Your task to perform on an android device: Search for a new grill on Home Depot Image 0: 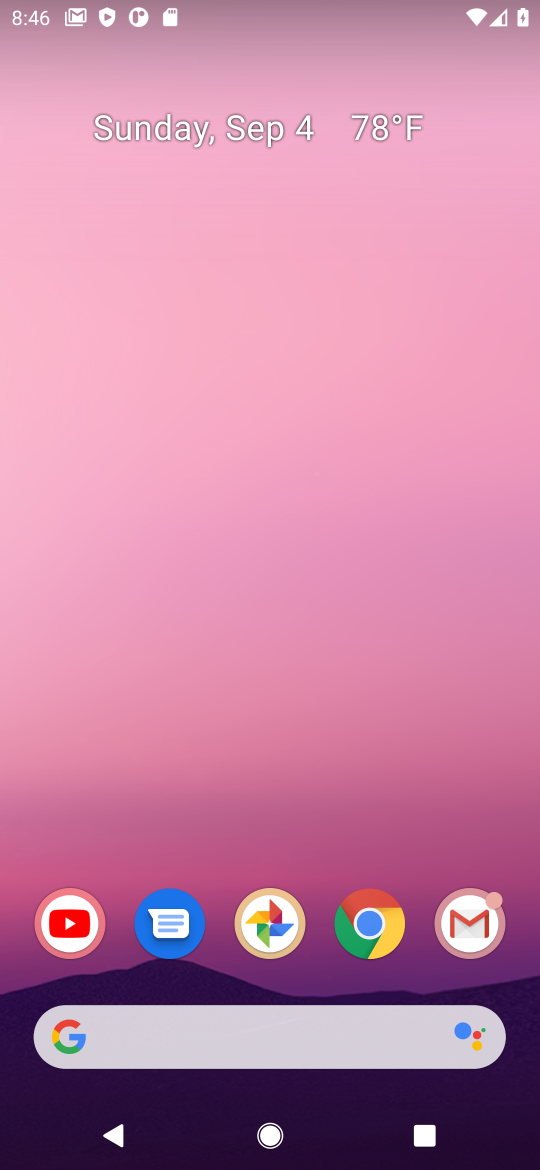
Step 0: click (335, 940)
Your task to perform on an android device: Search for a new grill on Home Depot Image 1: 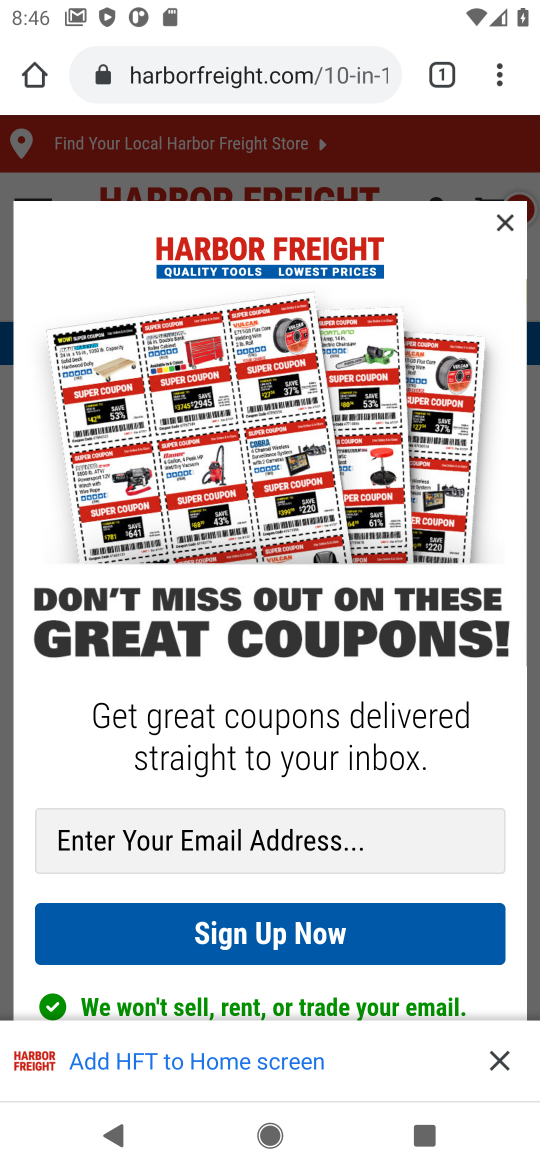
Step 1: click (152, 84)
Your task to perform on an android device: Search for a new grill on Home Depot Image 2: 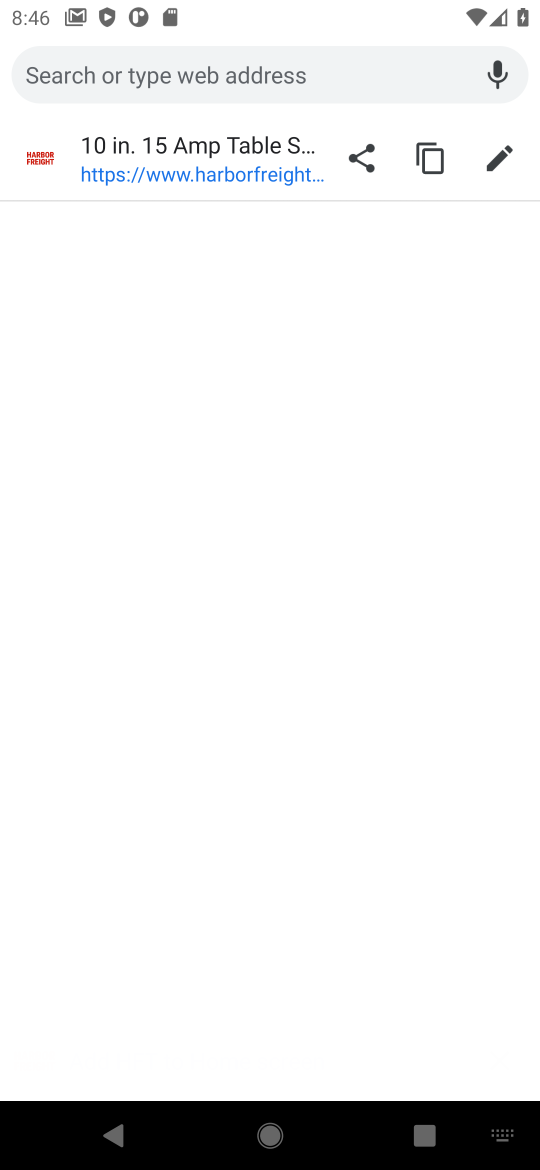
Step 2: type "new grill on Home Depot"
Your task to perform on an android device: Search for a new grill on Home Depot Image 3: 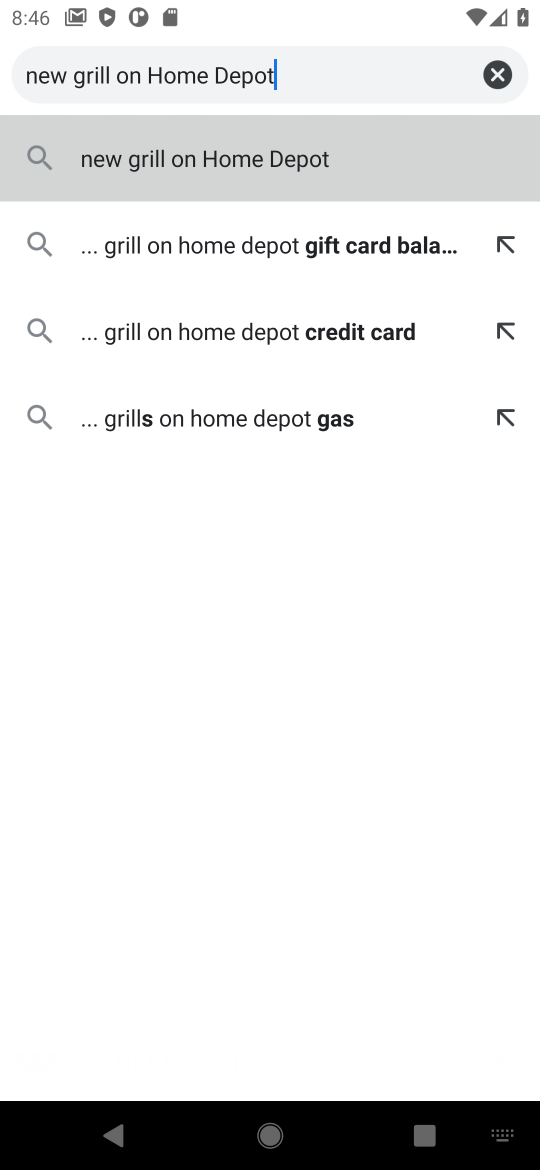
Step 3: click (205, 140)
Your task to perform on an android device: Search for a new grill on Home Depot Image 4: 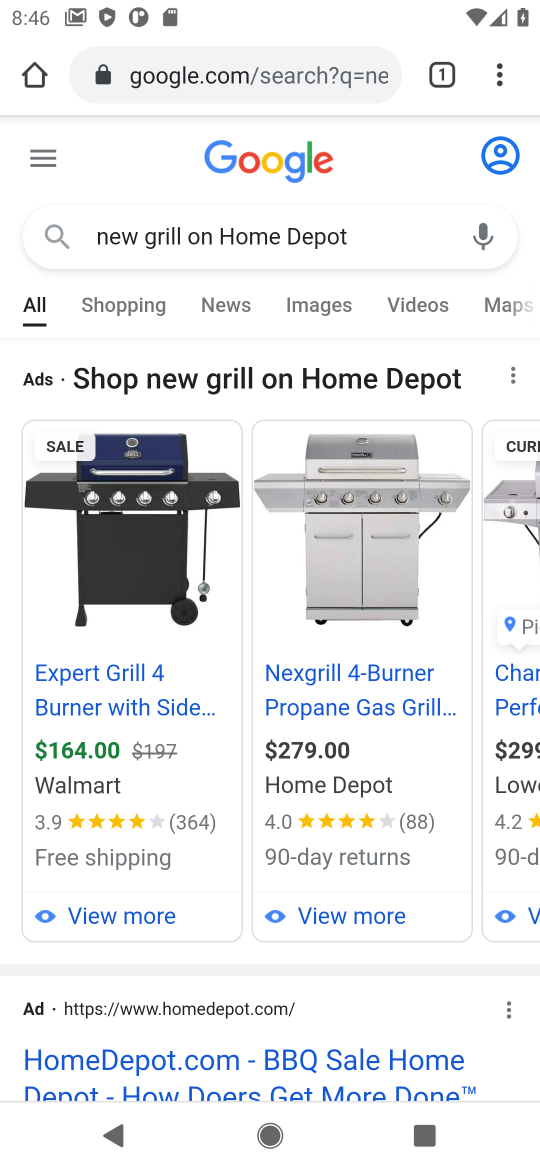
Step 4: task complete